Your task to perform on an android device: Open Chrome and go to settings Image 0: 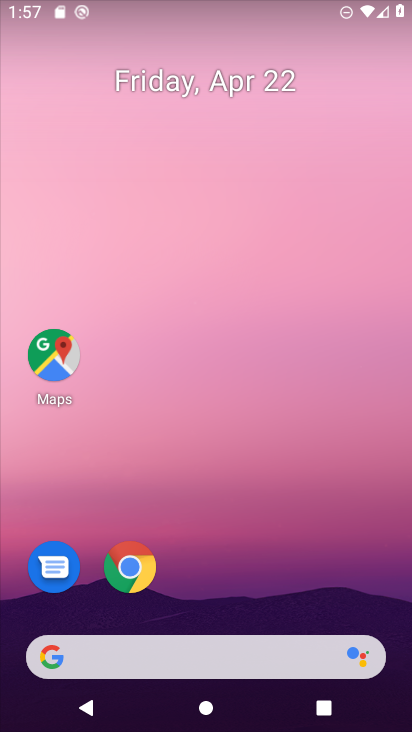
Step 0: click (126, 577)
Your task to perform on an android device: Open Chrome and go to settings Image 1: 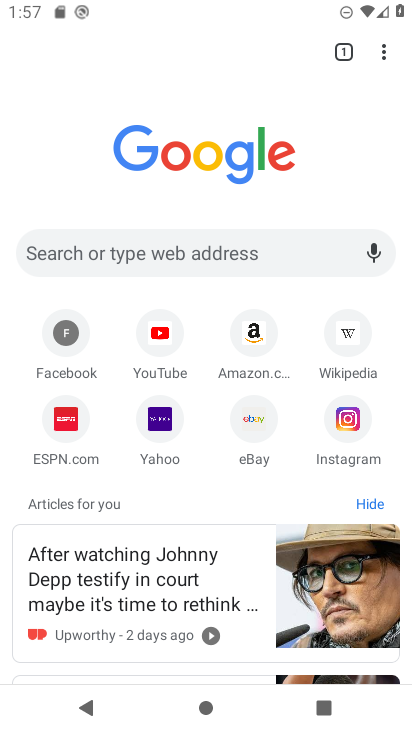
Step 1: click (391, 56)
Your task to perform on an android device: Open Chrome and go to settings Image 2: 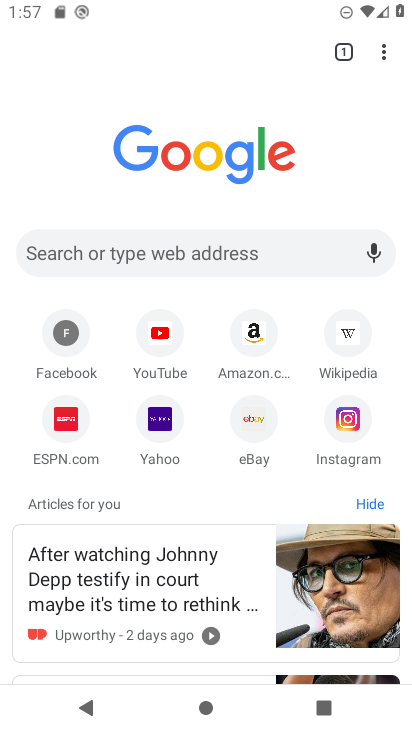
Step 2: click (384, 44)
Your task to perform on an android device: Open Chrome and go to settings Image 3: 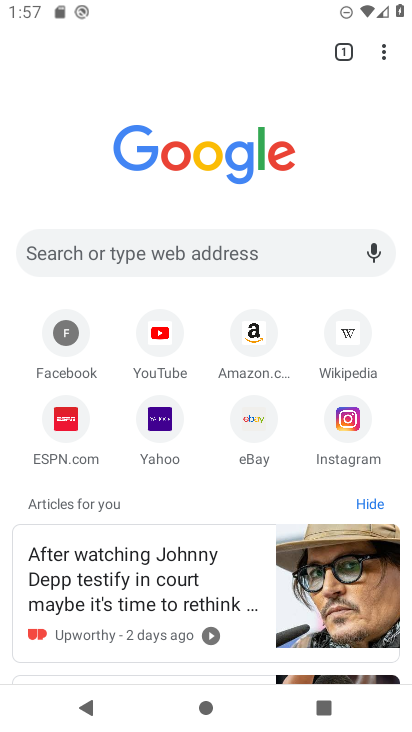
Step 3: click (386, 32)
Your task to perform on an android device: Open Chrome and go to settings Image 4: 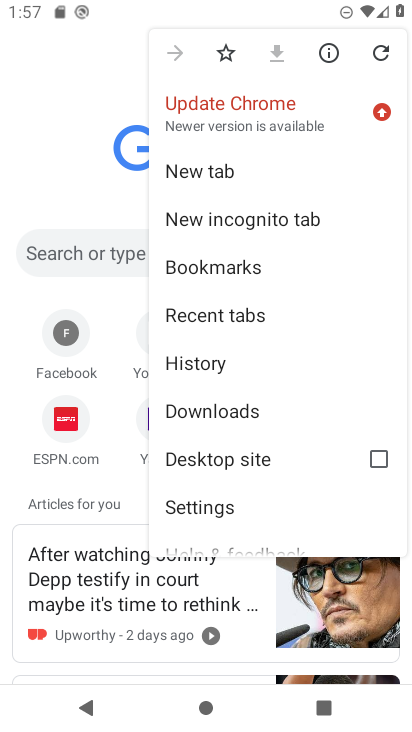
Step 4: click (217, 503)
Your task to perform on an android device: Open Chrome and go to settings Image 5: 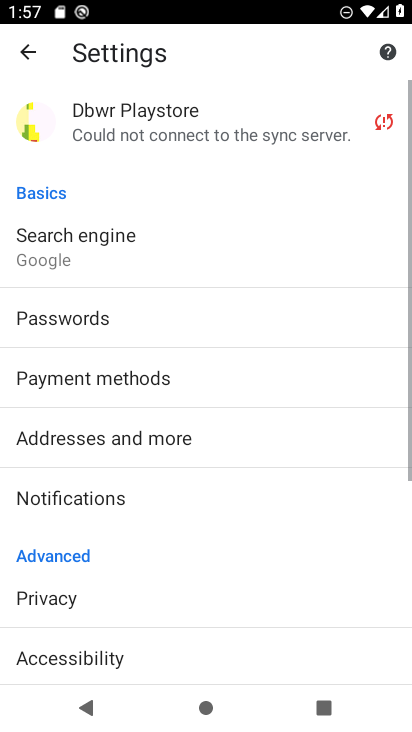
Step 5: task complete